Your task to perform on an android device: Show me popular videos on Youtube Image 0: 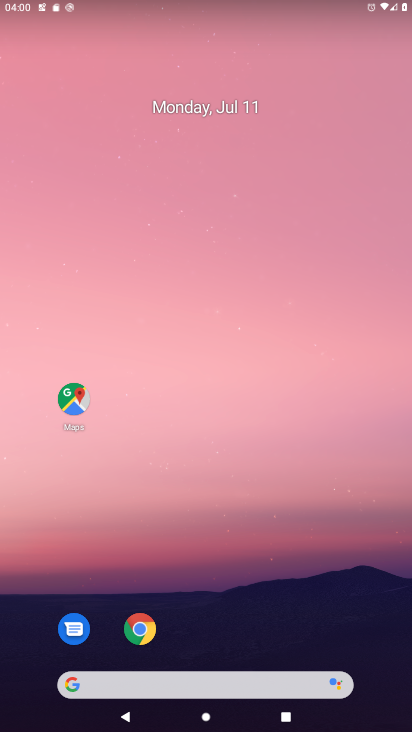
Step 0: drag from (302, 474) to (284, 0)
Your task to perform on an android device: Show me popular videos on Youtube Image 1: 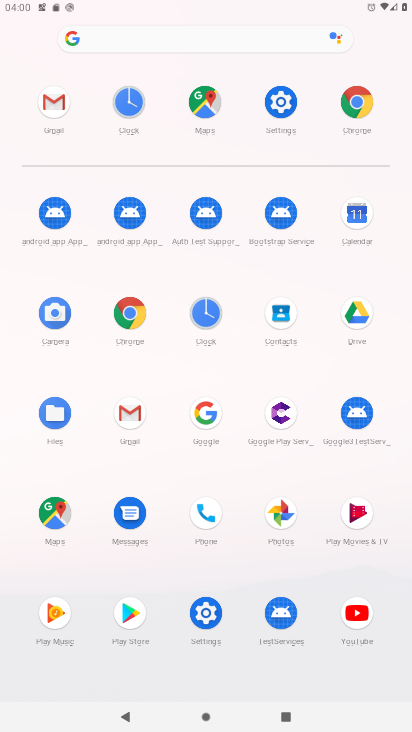
Step 1: click (351, 617)
Your task to perform on an android device: Show me popular videos on Youtube Image 2: 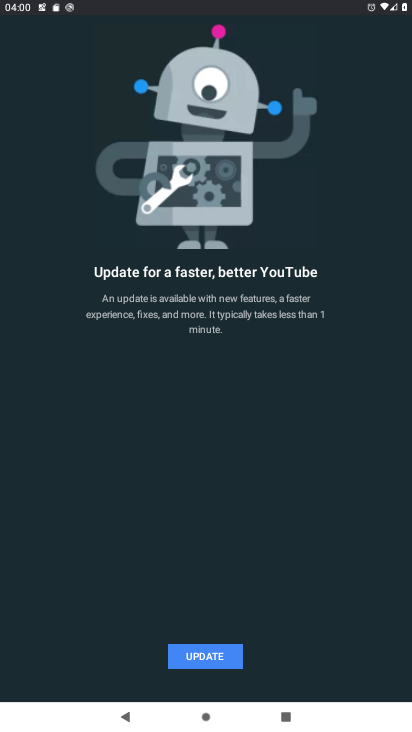
Step 2: task complete